Your task to perform on an android device: Search for pizza restaurants on Maps Image 0: 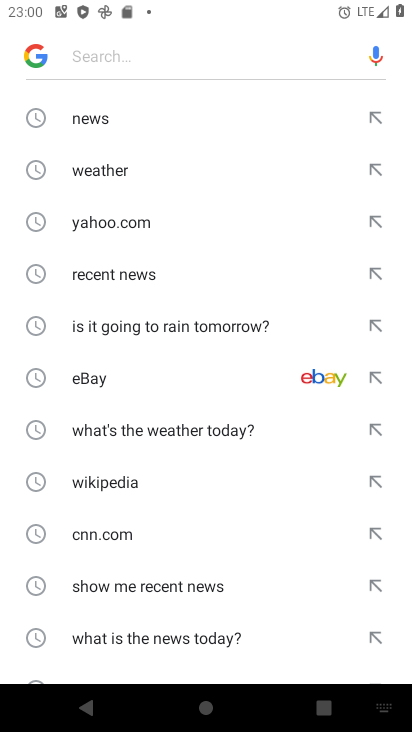
Step 0: press home button
Your task to perform on an android device: Search for pizza restaurants on Maps Image 1: 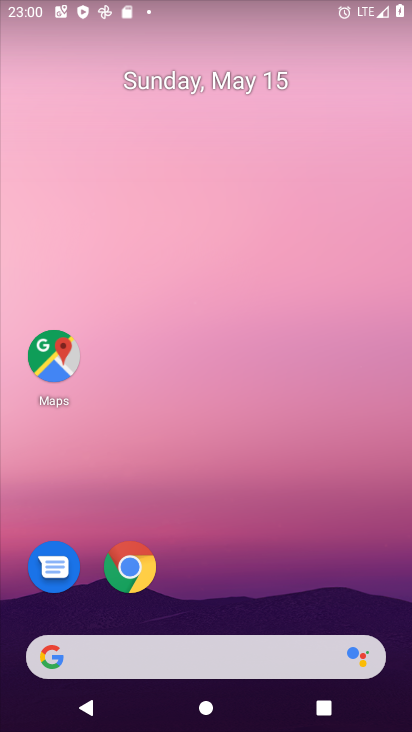
Step 1: click (59, 358)
Your task to perform on an android device: Search for pizza restaurants on Maps Image 2: 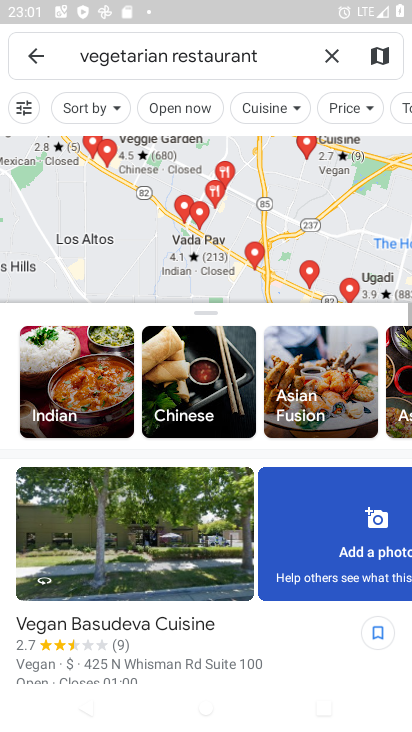
Step 2: click (321, 58)
Your task to perform on an android device: Search for pizza restaurants on Maps Image 3: 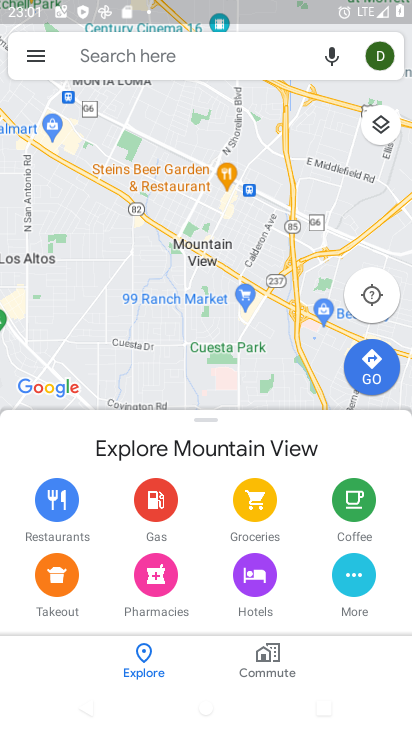
Step 3: click (231, 52)
Your task to perform on an android device: Search for pizza restaurants on Maps Image 4: 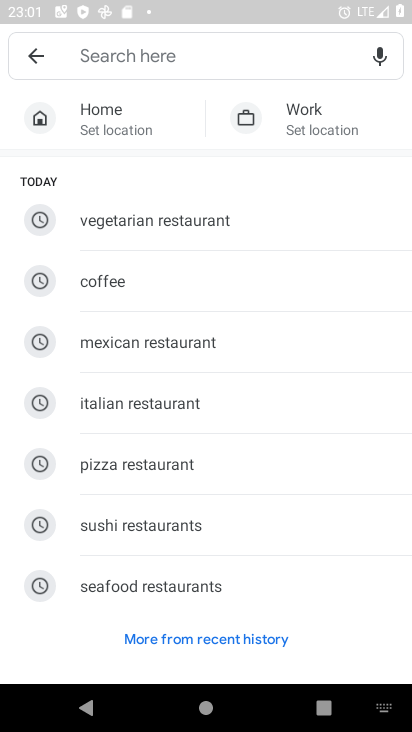
Step 4: click (194, 453)
Your task to perform on an android device: Search for pizza restaurants on Maps Image 5: 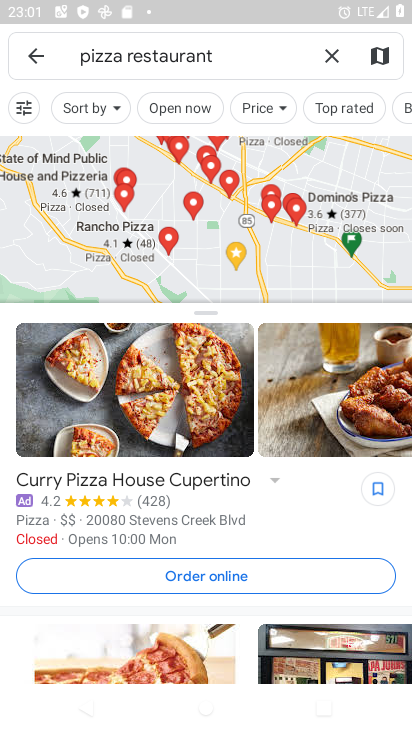
Step 5: task complete